Your task to perform on an android device: Open the map Image 0: 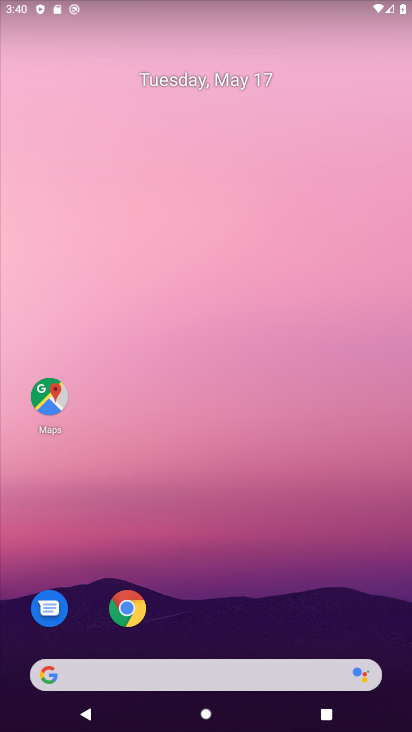
Step 0: click (55, 398)
Your task to perform on an android device: Open the map Image 1: 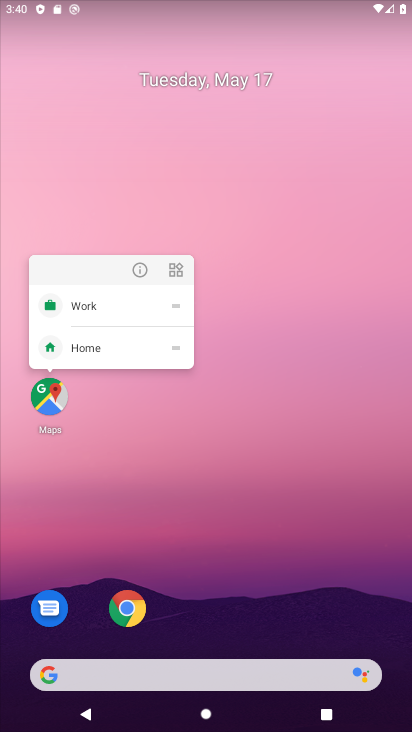
Step 1: click (59, 400)
Your task to perform on an android device: Open the map Image 2: 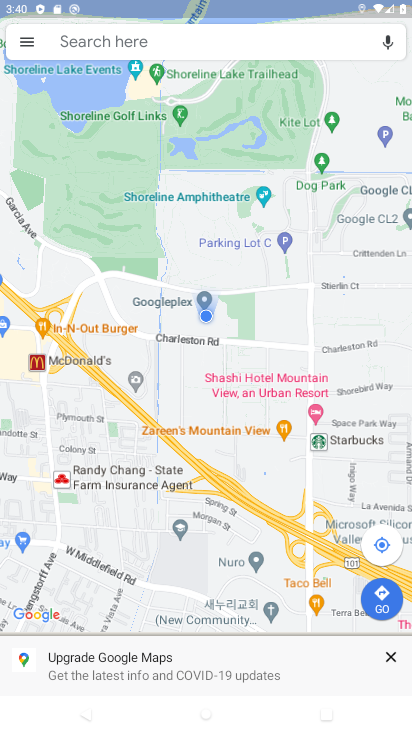
Step 2: task complete